Your task to perform on an android device: check data usage Image 0: 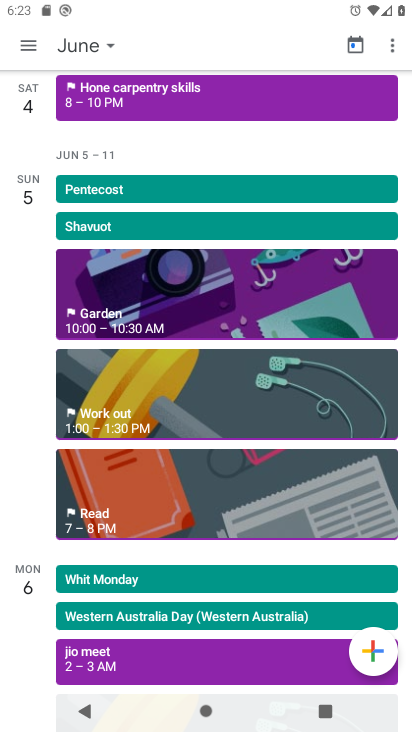
Step 0: press home button
Your task to perform on an android device: check data usage Image 1: 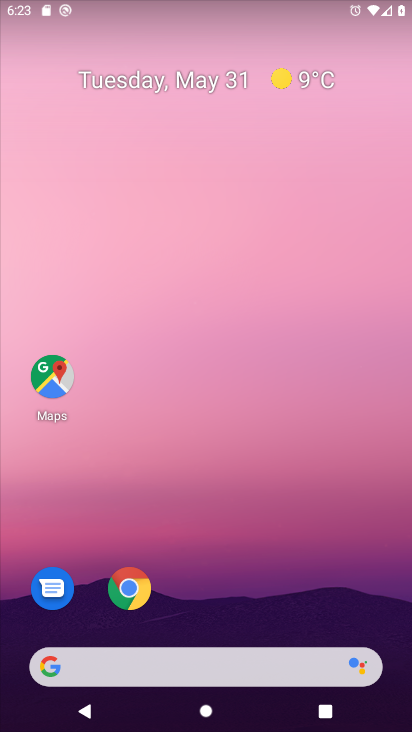
Step 1: drag from (241, 610) to (205, 155)
Your task to perform on an android device: check data usage Image 2: 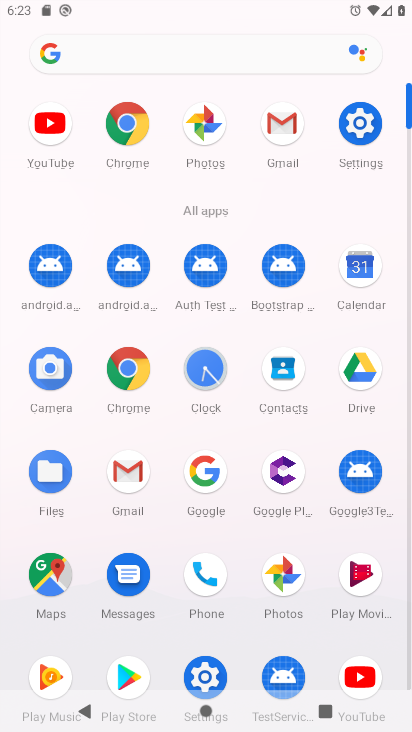
Step 2: click (361, 141)
Your task to perform on an android device: check data usage Image 3: 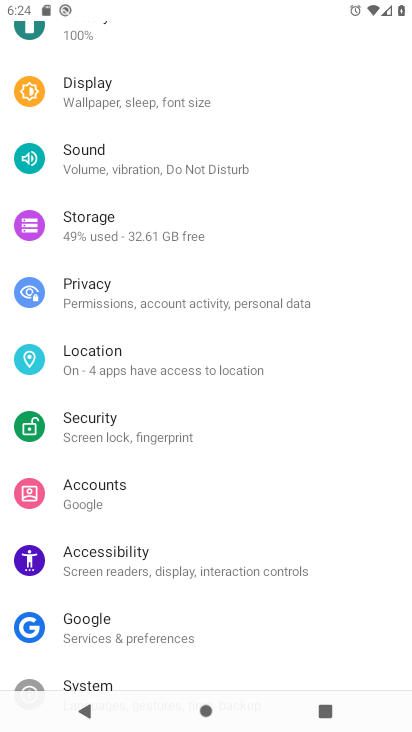
Step 3: drag from (197, 181) to (196, 439)
Your task to perform on an android device: check data usage Image 4: 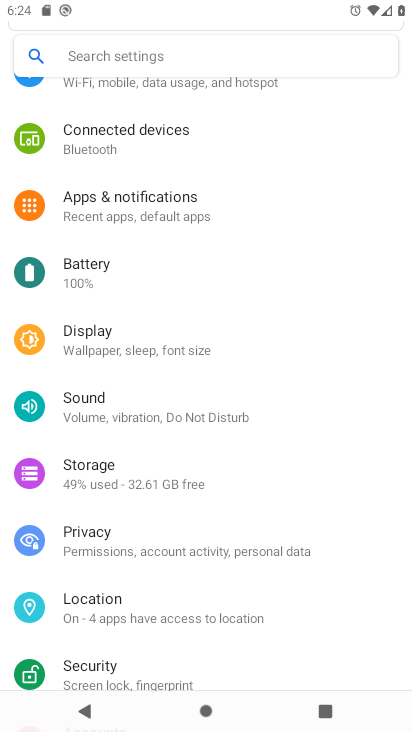
Step 4: drag from (153, 263) to (118, 507)
Your task to perform on an android device: check data usage Image 5: 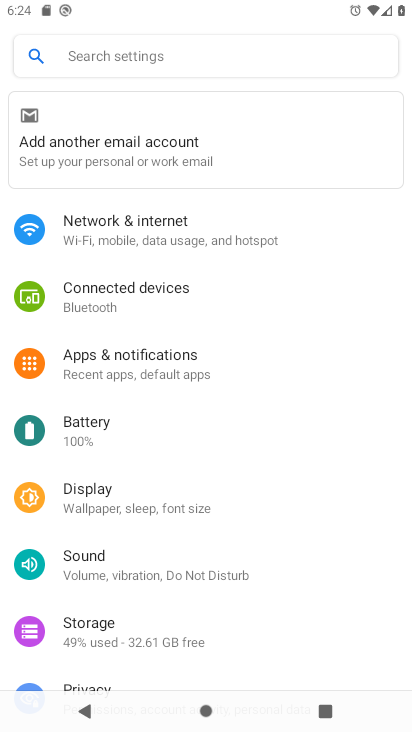
Step 5: click (107, 237)
Your task to perform on an android device: check data usage Image 6: 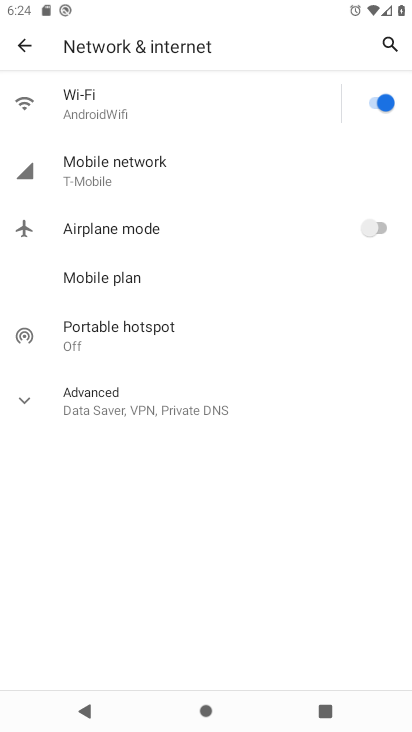
Step 6: click (164, 184)
Your task to perform on an android device: check data usage Image 7: 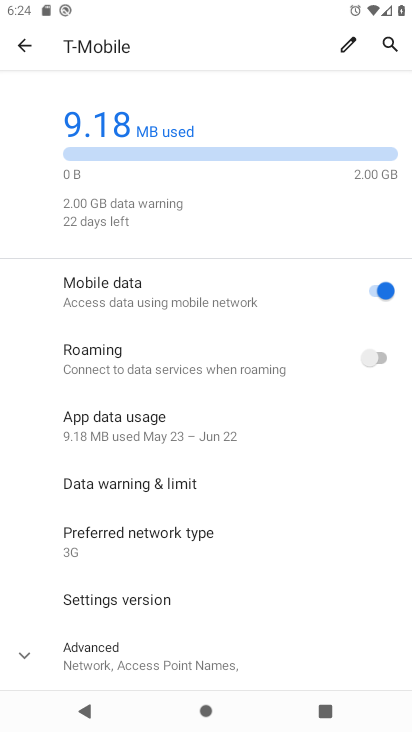
Step 7: task complete